Your task to perform on an android device: turn on showing notifications on the lock screen Image 0: 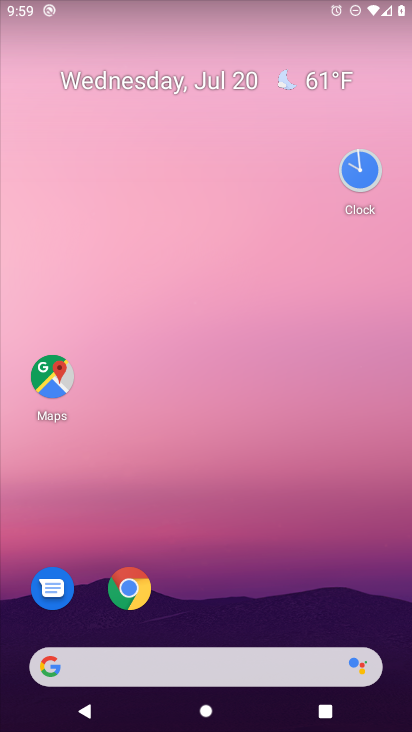
Step 0: drag from (27, 667) to (235, 219)
Your task to perform on an android device: turn on showing notifications on the lock screen Image 1: 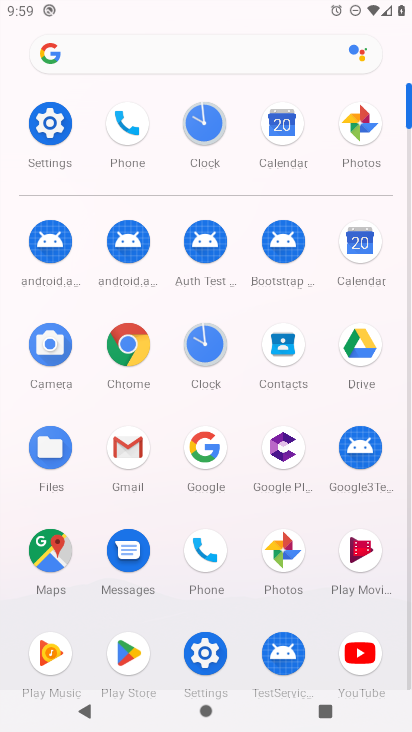
Step 1: click (221, 660)
Your task to perform on an android device: turn on showing notifications on the lock screen Image 2: 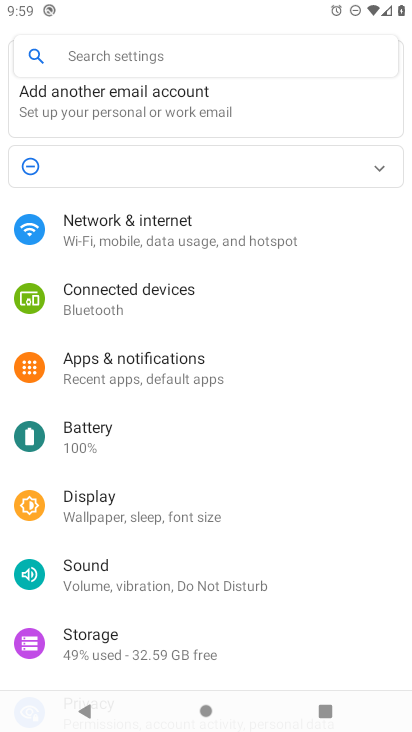
Step 2: drag from (326, 644) to (329, 306)
Your task to perform on an android device: turn on showing notifications on the lock screen Image 3: 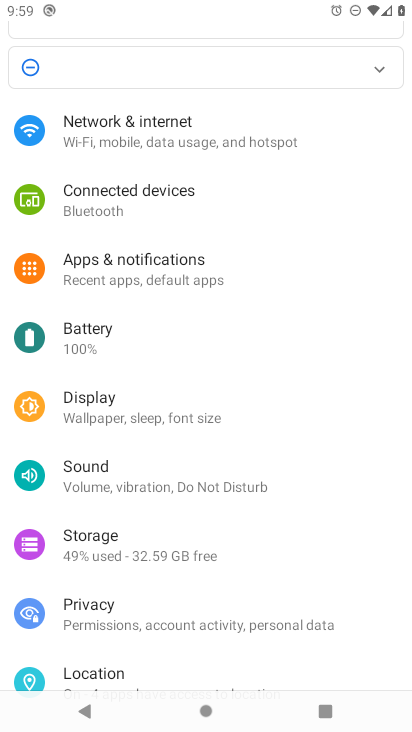
Step 3: click (120, 621)
Your task to perform on an android device: turn on showing notifications on the lock screen Image 4: 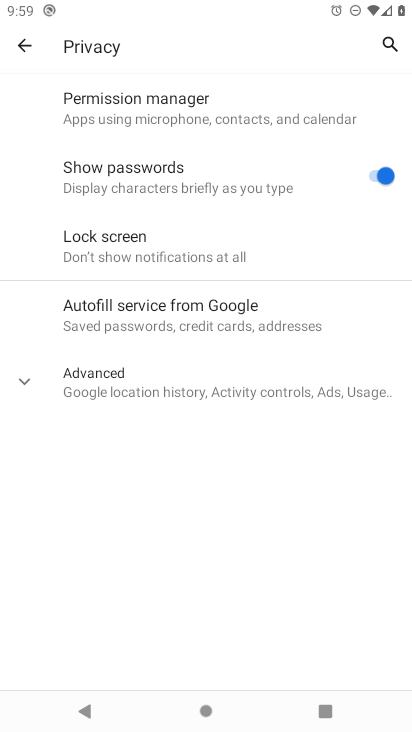
Step 4: click (128, 234)
Your task to perform on an android device: turn on showing notifications on the lock screen Image 5: 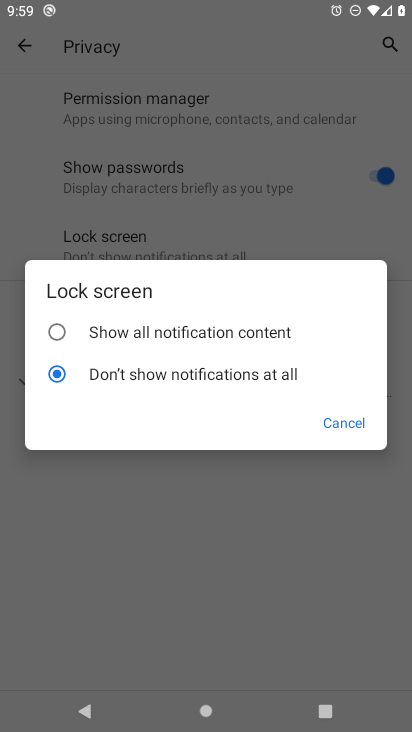
Step 5: click (54, 330)
Your task to perform on an android device: turn on showing notifications on the lock screen Image 6: 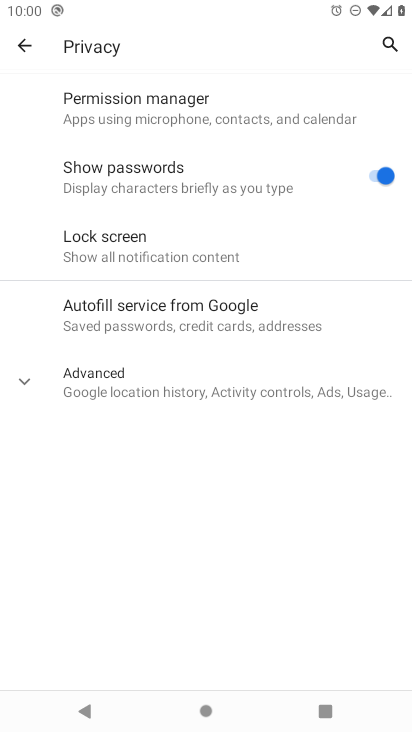
Step 6: task complete